Your task to perform on an android device: Open Maps and search for coffee Image 0: 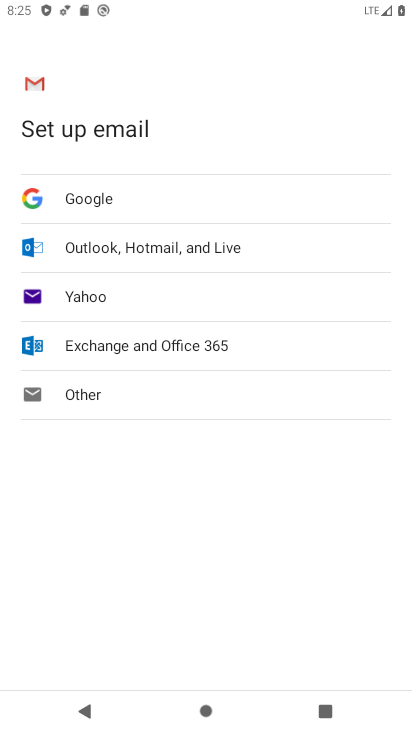
Step 0: press home button
Your task to perform on an android device: Open Maps and search for coffee Image 1: 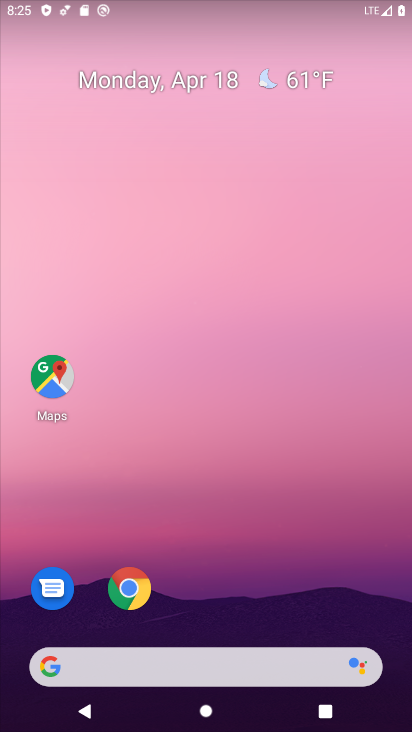
Step 1: click (51, 377)
Your task to perform on an android device: Open Maps and search for coffee Image 2: 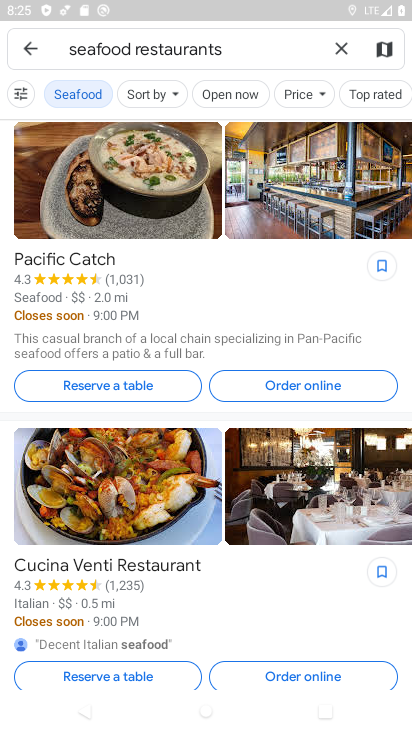
Step 2: click (338, 49)
Your task to perform on an android device: Open Maps and search for coffee Image 3: 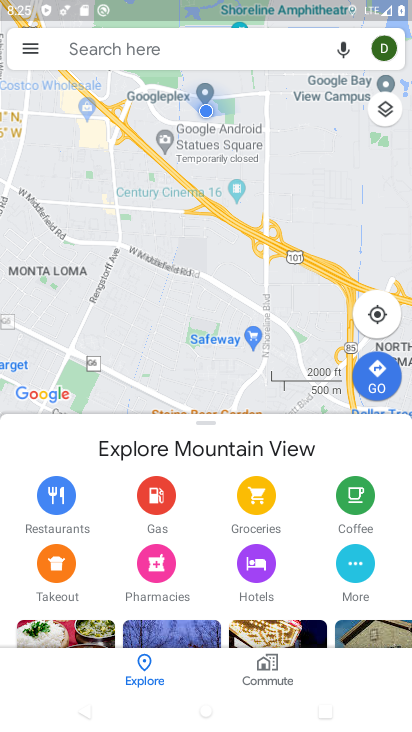
Step 3: click (124, 48)
Your task to perform on an android device: Open Maps and search for coffee Image 4: 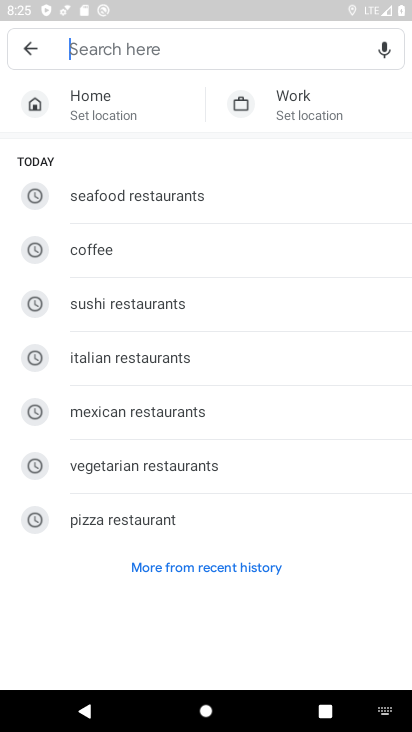
Step 4: type "coffee"
Your task to perform on an android device: Open Maps and search for coffee Image 5: 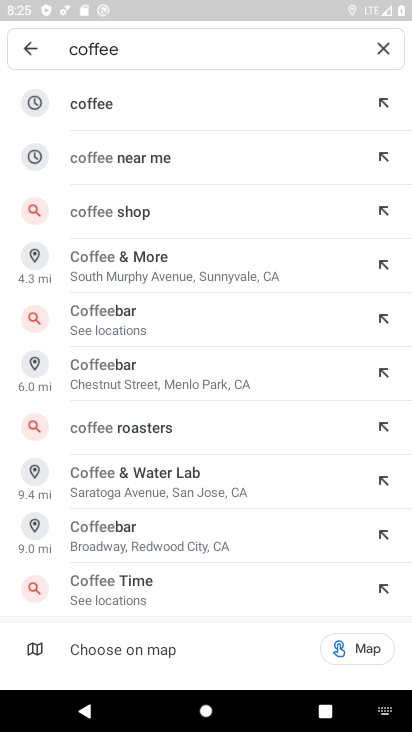
Step 5: click (102, 108)
Your task to perform on an android device: Open Maps and search for coffee Image 6: 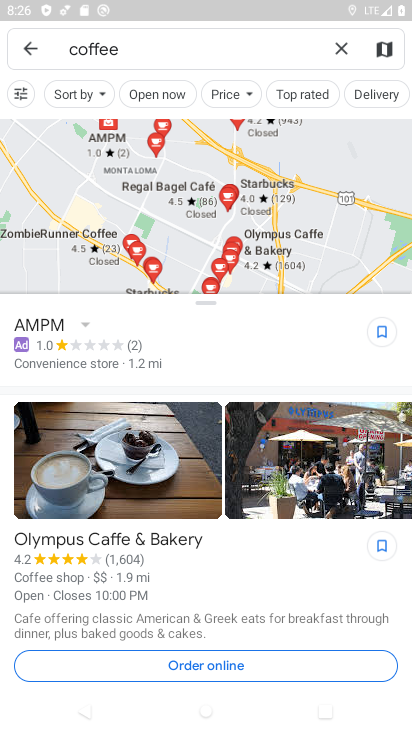
Step 6: task complete